Your task to perform on an android device: Show me productivity apps on the Play Store Image 0: 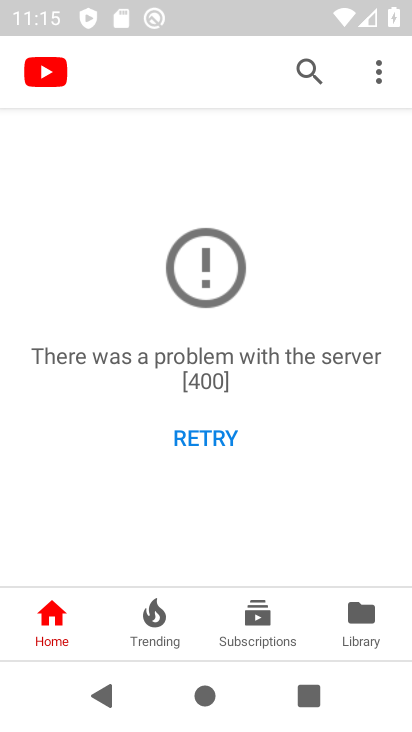
Step 0: press home button
Your task to perform on an android device: Show me productivity apps on the Play Store Image 1: 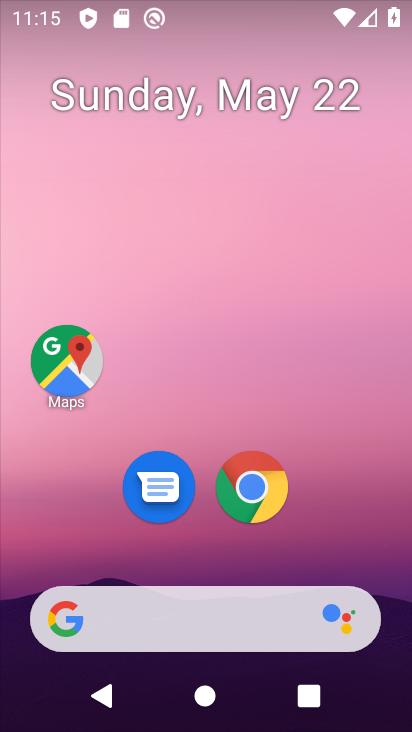
Step 1: drag from (353, 495) to (393, 92)
Your task to perform on an android device: Show me productivity apps on the Play Store Image 2: 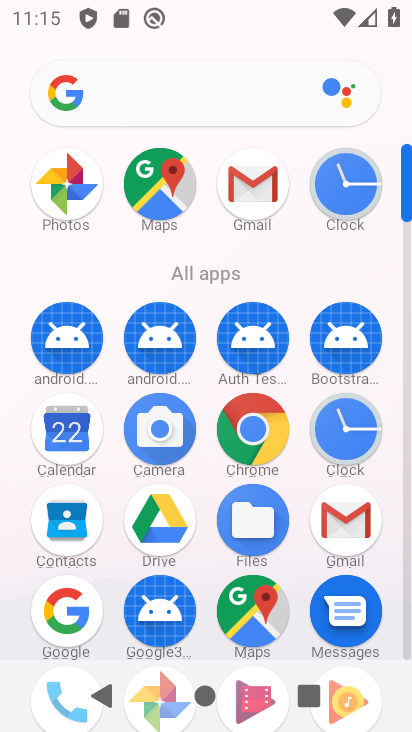
Step 2: drag from (231, 633) to (271, 198)
Your task to perform on an android device: Show me productivity apps on the Play Store Image 3: 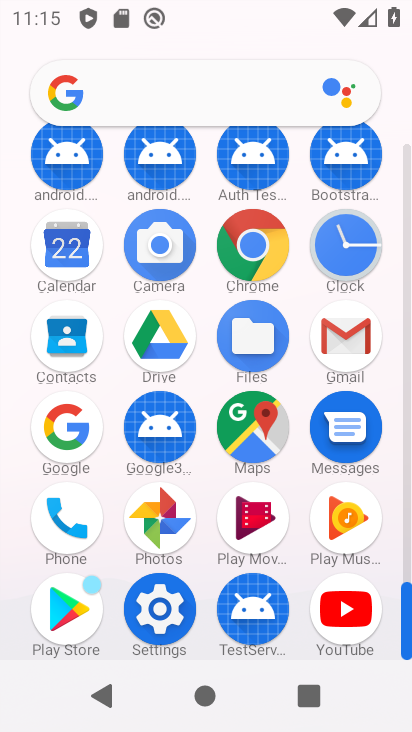
Step 3: click (34, 632)
Your task to perform on an android device: Show me productivity apps on the Play Store Image 4: 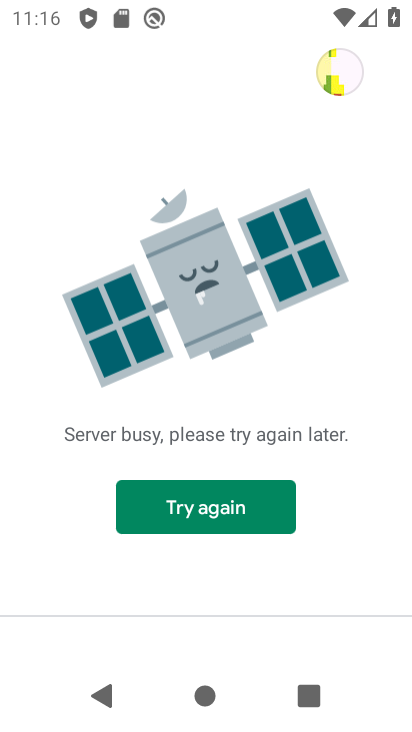
Step 4: press home button
Your task to perform on an android device: Show me productivity apps on the Play Store Image 5: 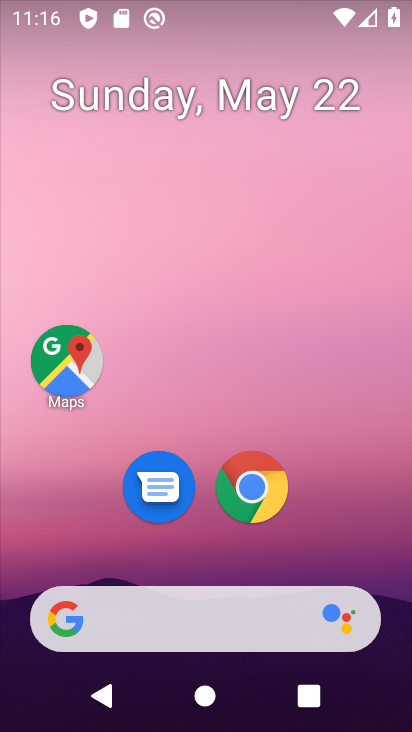
Step 5: drag from (354, 529) to (339, 196)
Your task to perform on an android device: Show me productivity apps on the Play Store Image 6: 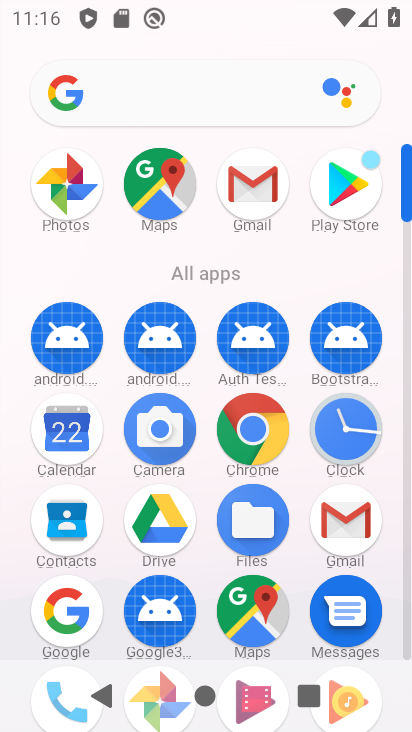
Step 6: drag from (199, 567) to (235, 294)
Your task to perform on an android device: Show me productivity apps on the Play Store Image 7: 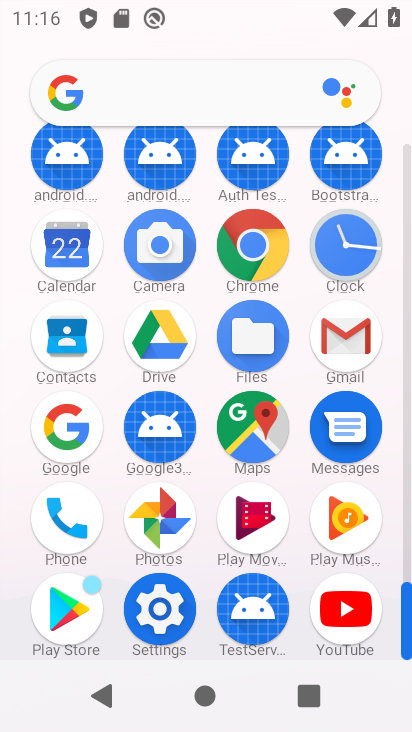
Step 7: click (64, 606)
Your task to perform on an android device: Show me productivity apps on the Play Store Image 8: 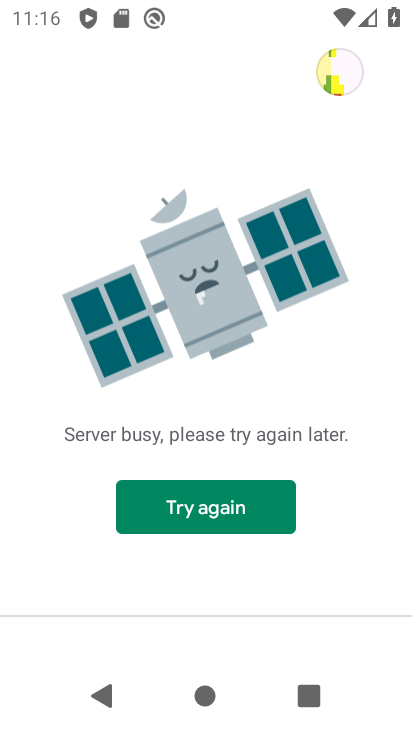
Step 8: task complete